Your task to perform on an android device: Open Google Maps Image 0: 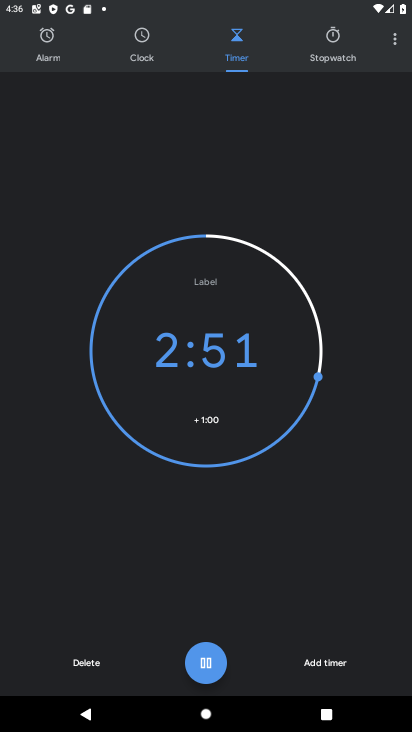
Step 0: press home button
Your task to perform on an android device: Open Google Maps Image 1: 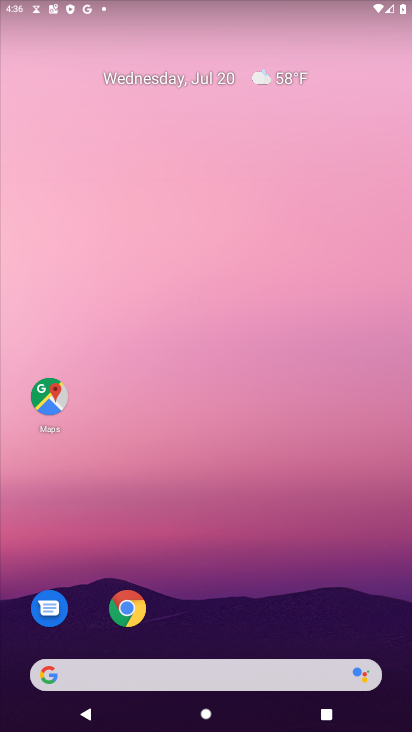
Step 1: click (54, 400)
Your task to perform on an android device: Open Google Maps Image 2: 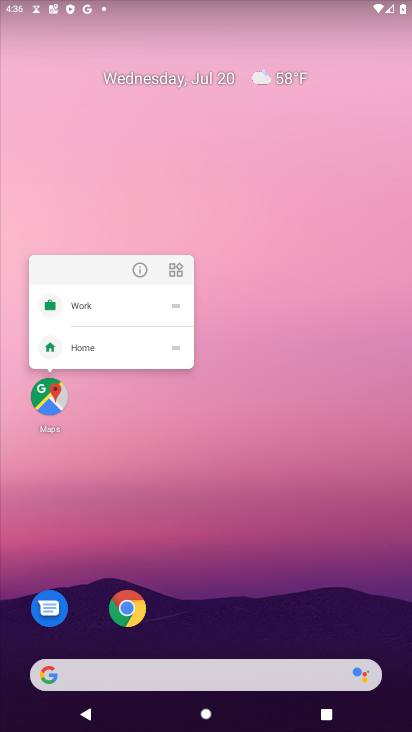
Step 2: click (56, 401)
Your task to perform on an android device: Open Google Maps Image 3: 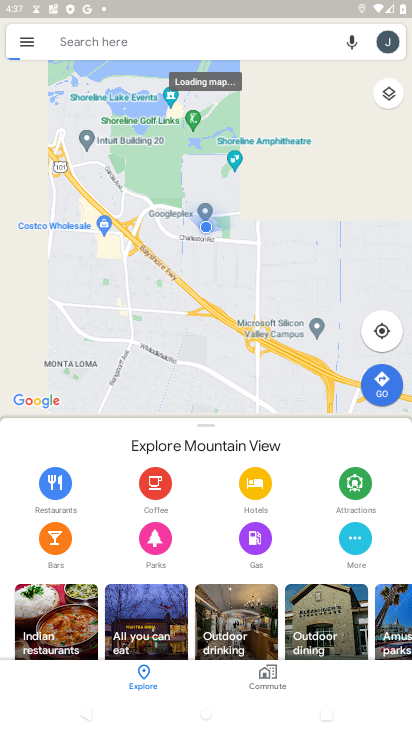
Step 3: task complete